Your task to perform on an android device: set the stopwatch Image 0: 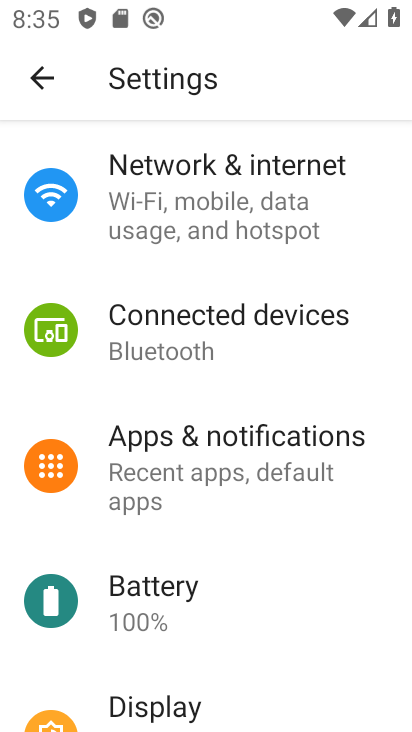
Step 0: press home button
Your task to perform on an android device: set the stopwatch Image 1: 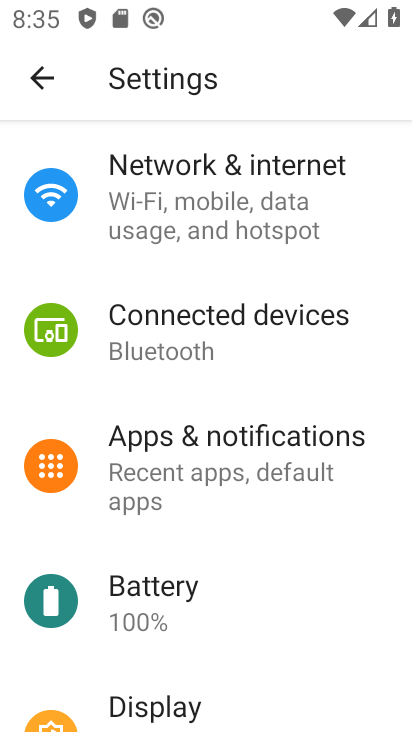
Step 1: press home button
Your task to perform on an android device: set the stopwatch Image 2: 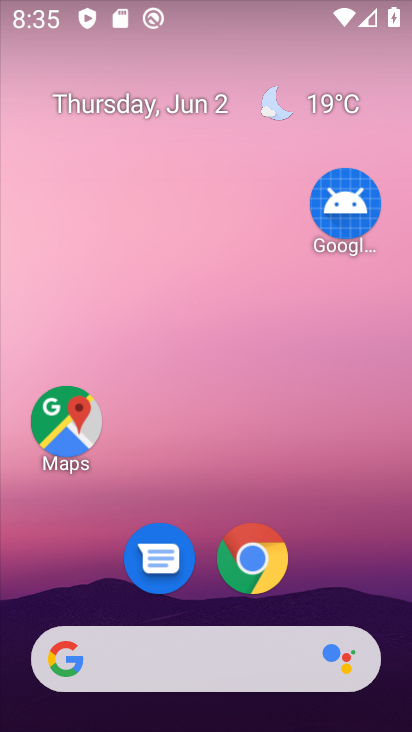
Step 2: drag from (344, 519) to (324, 181)
Your task to perform on an android device: set the stopwatch Image 3: 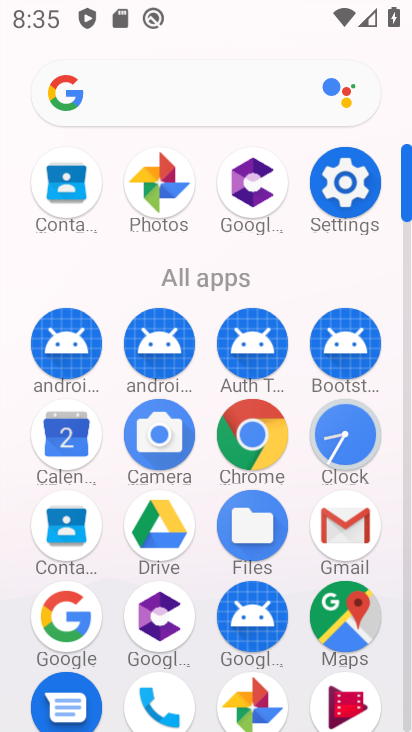
Step 3: drag from (204, 676) to (226, 539)
Your task to perform on an android device: set the stopwatch Image 4: 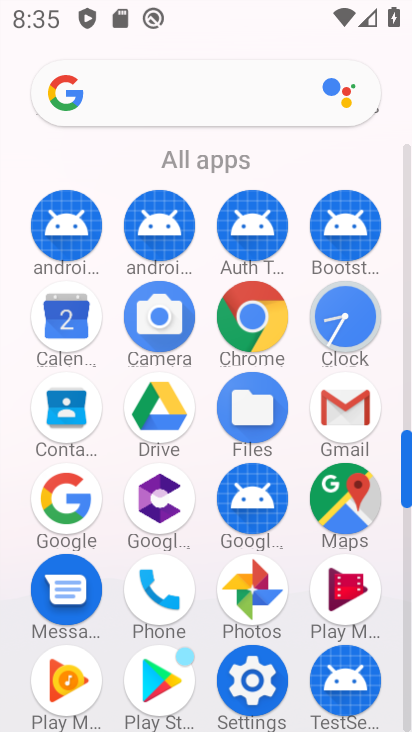
Step 4: click (360, 310)
Your task to perform on an android device: set the stopwatch Image 5: 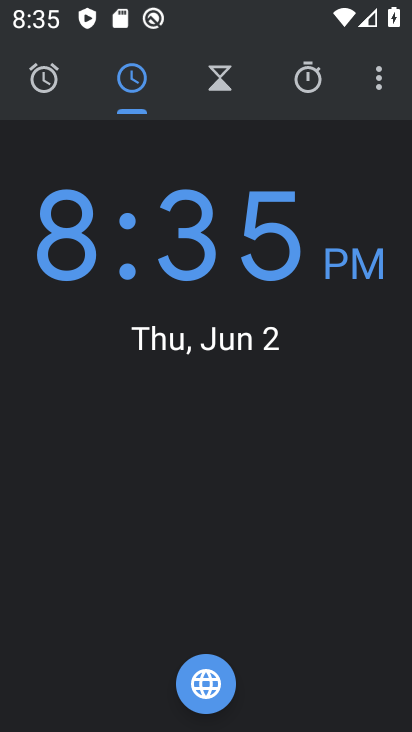
Step 5: click (302, 89)
Your task to perform on an android device: set the stopwatch Image 6: 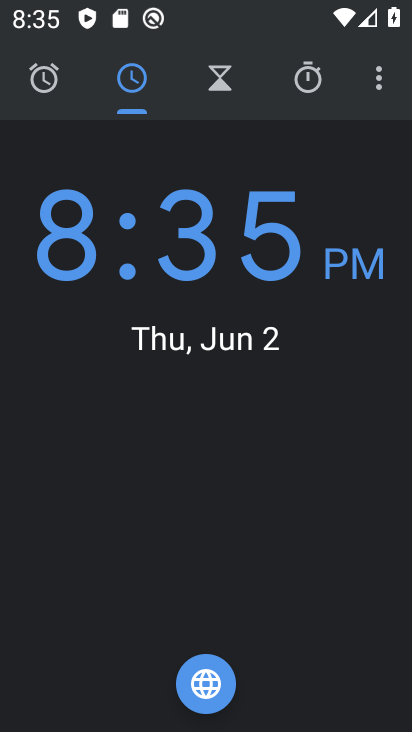
Step 6: click (302, 89)
Your task to perform on an android device: set the stopwatch Image 7: 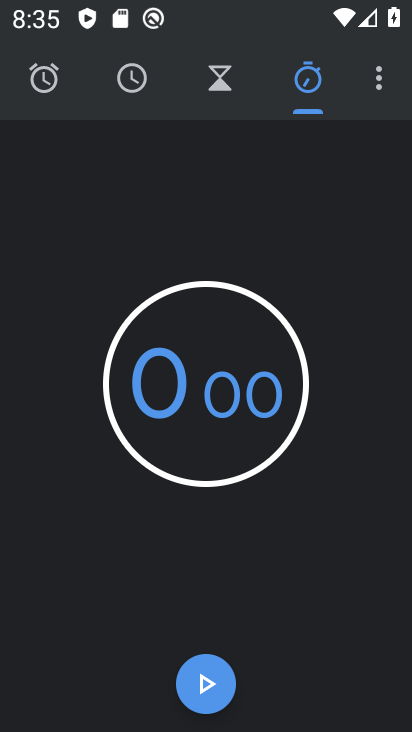
Step 7: click (309, 81)
Your task to perform on an android device: set the stopwatch Image 8: 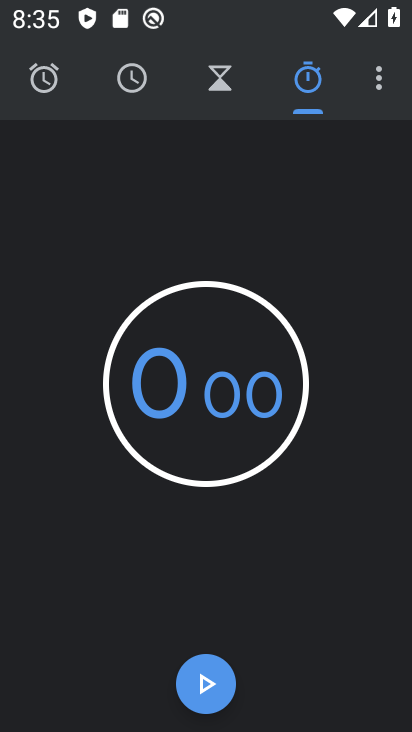
Step 8: click (200, 685)
Your task to perform on an android device: set the stopwatch Image 9: 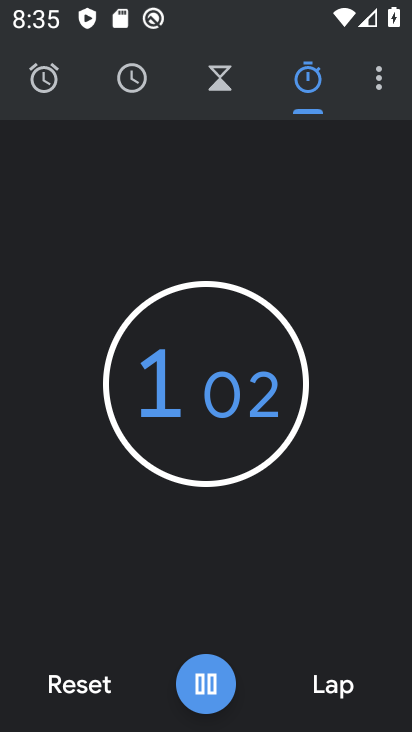
Step 9: click (200, 685)
Your task to perform on an android device: set the stopwatch Image 10: 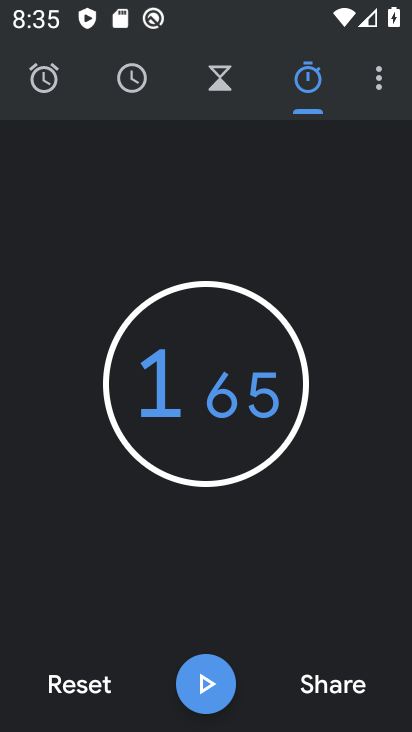
Step 10: task complete